Your task to perform on an android device: Go to eBay Image 0: 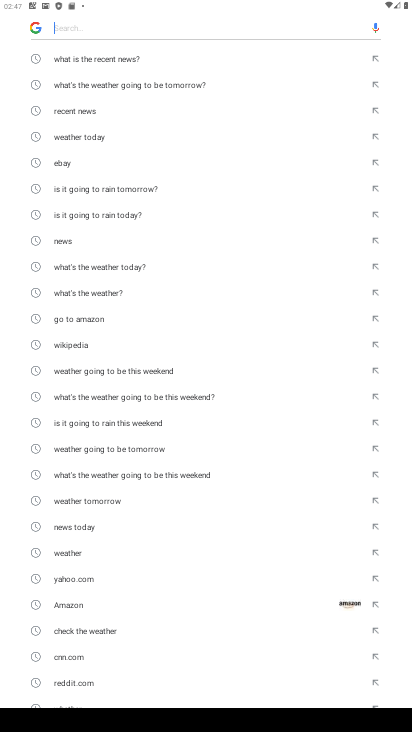
Step 0: type "eBay"
Your task to perform on an android device: Go to eBay Image 1: 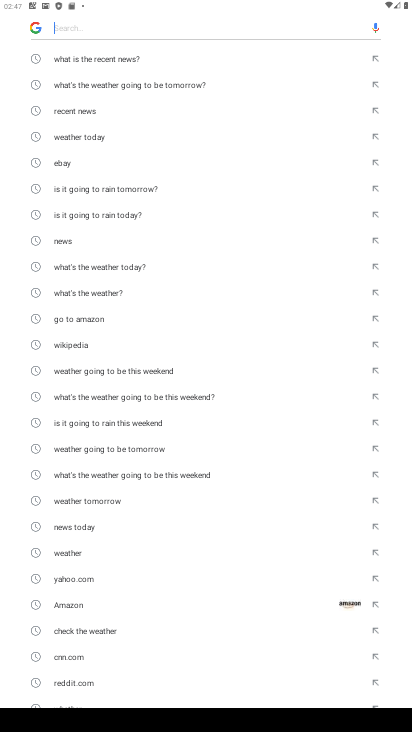
Step 1: click (79, 23)
Your task to perform on an android device: Go to eBay Image 2: 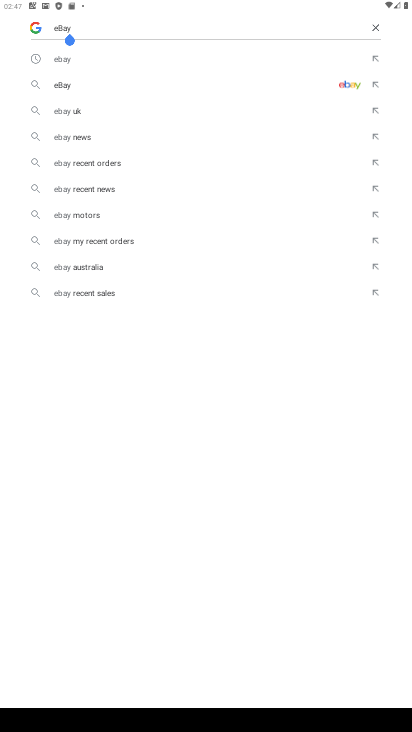
Step 2: press enter
Your task to perform on an android device: Go to eBay Image 3: 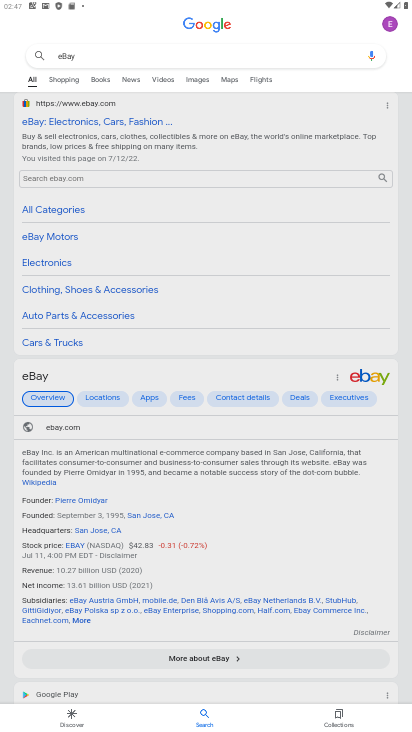
Step 3: click (33, 373)
Your task to perform on an android device: Go to eBay Image 4: 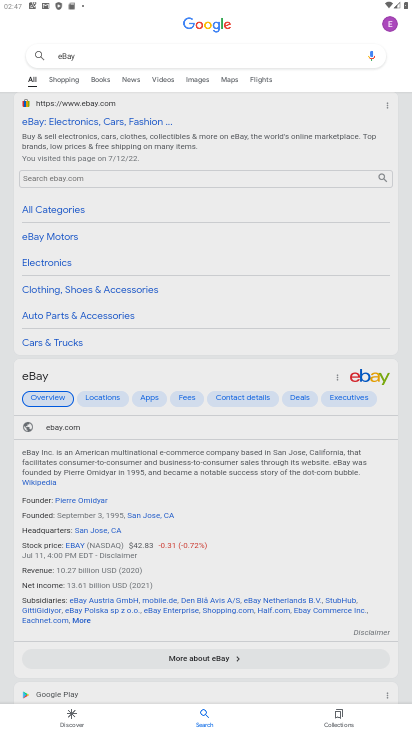
Step 4: click (64, 427)
Your task to perform on an android device: Go to eBay Image 5: 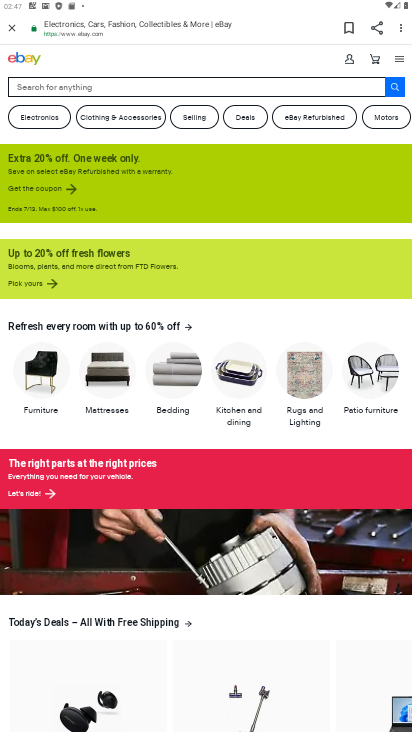
Step 5: task complete